Your task to perform on an android device: turn on showing notifications on the lock screen Image 0: 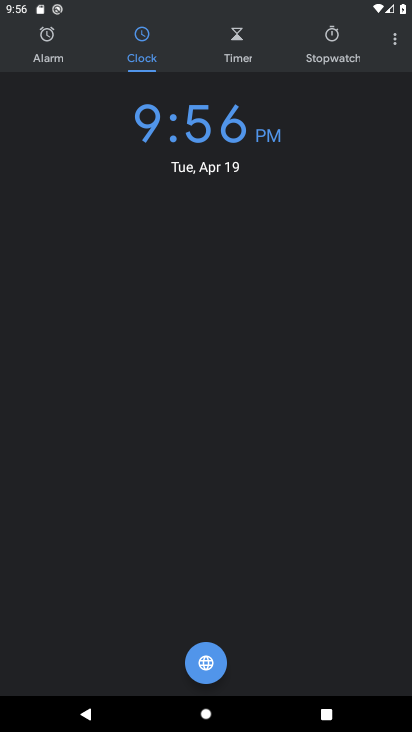
Step 0: press home button
Your task to perform on an android device: turn on showing notifications on the lock screen Image 1: 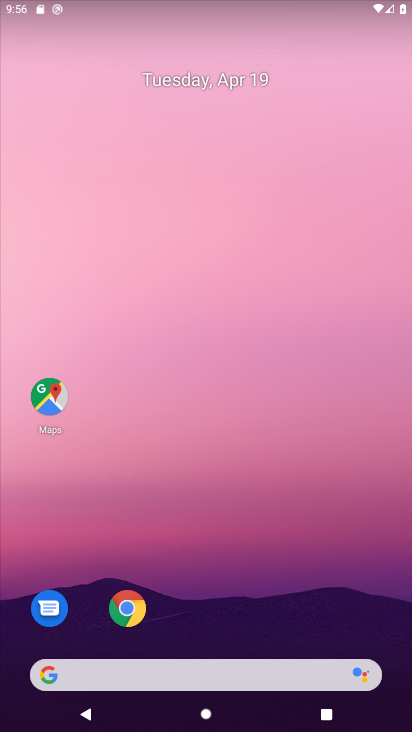
Step 1: drag from (213, 582) to (177, 74)
Your task to perform on an android device: turn on showing notifications on the lock screen Image 2: 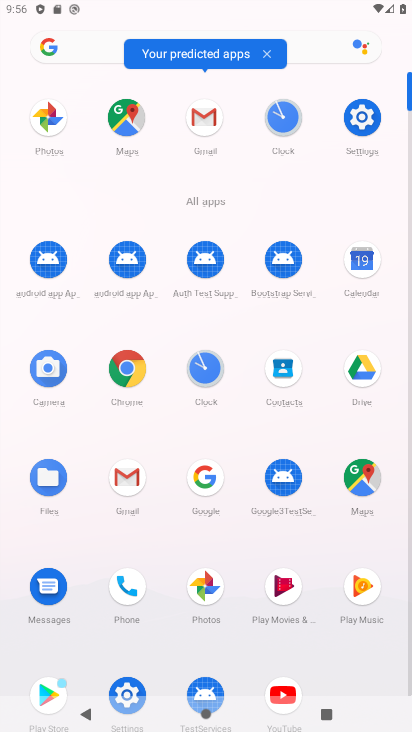
Step 2: click (361, 120)
Your task to perform on an android device: turn on showing notifications on the lock screen Image 3: 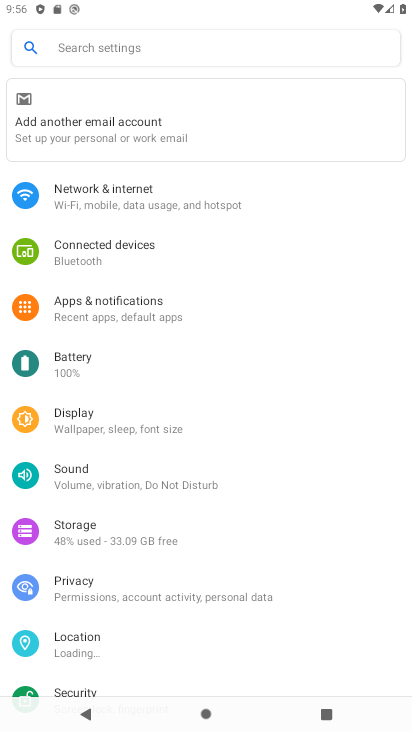
Step 3: click (110, 307)
Your task to perform on an android device: turn on showing notifications on the lock screen Image 4: 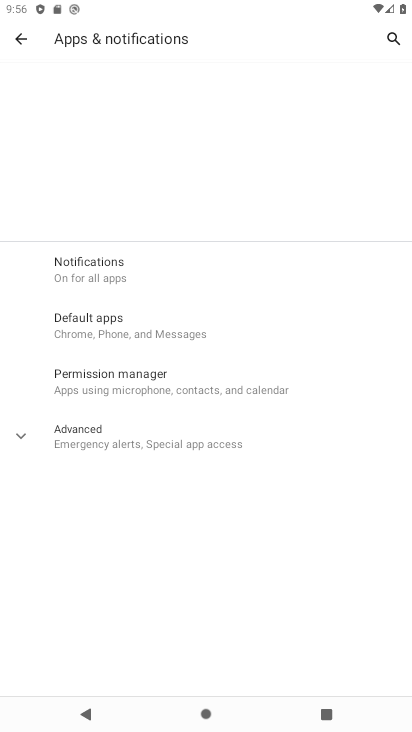
Step 4: click (93, 261)
Your task to perform on an android device: turn on showing notifications on the lock screen Image 5: 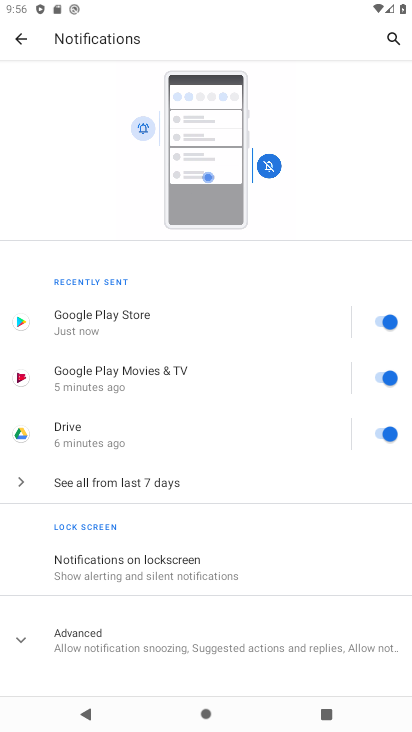
Step 5: click (140, 567)
Your task to perform on an android device: turn on showing notifications on the lock screen Image 6: 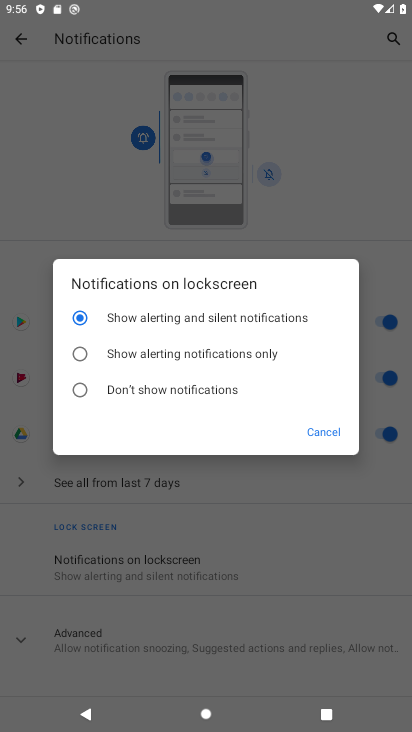
Step 6: task complete